Your task to perform on an android device: Open calendar and show me the first week of next month Image 0: 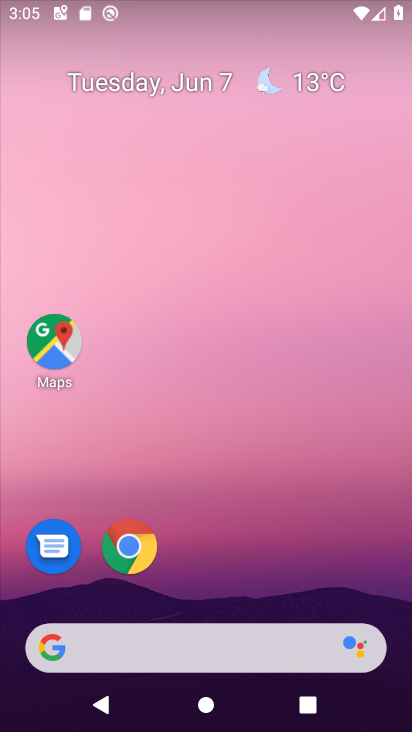
Step 0: drag from (315, 595) to (387, 137)
Your task to perform on an android device: Open calendar and show me the first week of next month Image 1: 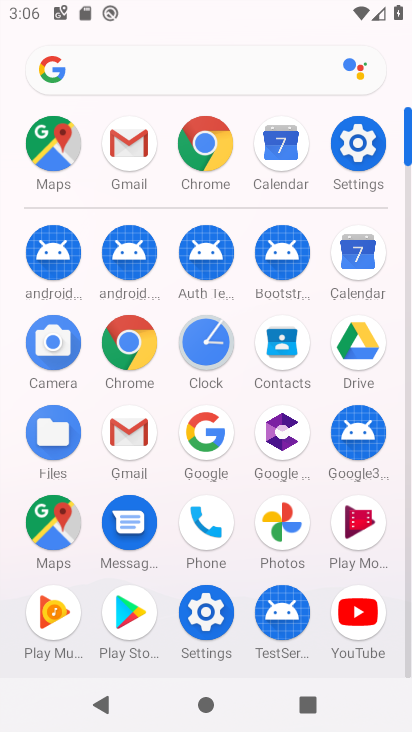
Step 1: click (356, 277)
Your task to perform on an android device: Open calendar and show me the first week of next month Image 2: 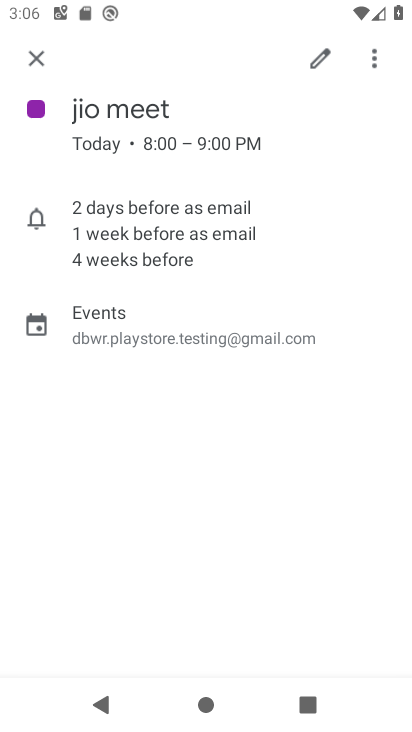
Step 2: click (30, 61)
Your task to perform on an android device: Open calendar and show me the first week of next month Image 3: 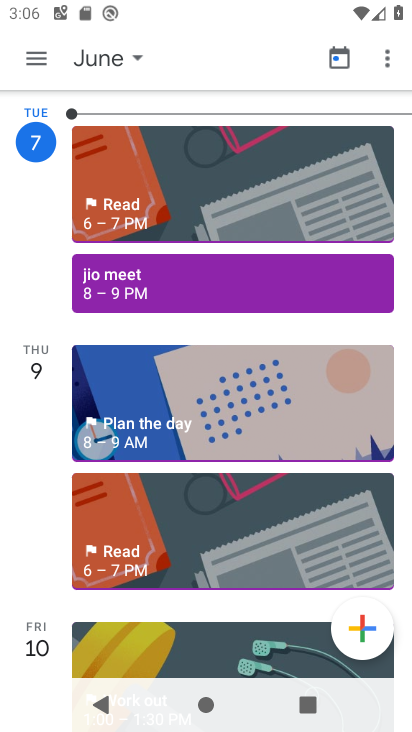
Step 3: click (142, 57)
Your task to perform on an android device: Open calendar and show me the first week of next month Image 4: 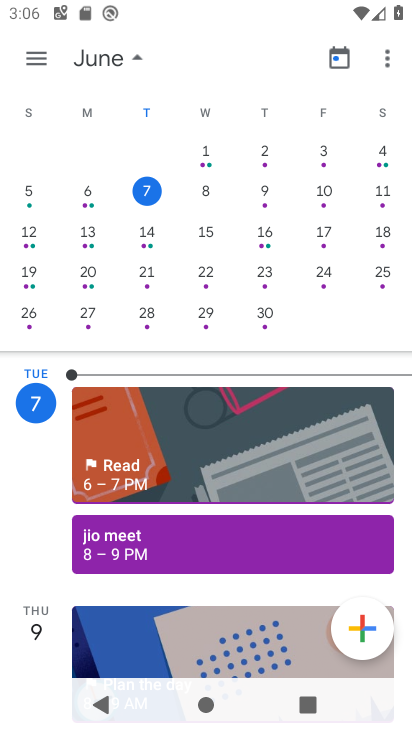
Step 4: drag from (362, 126) to (18, 215)
Your task to perform on an android device: Open calendar and show me the first week of next month Image 5: 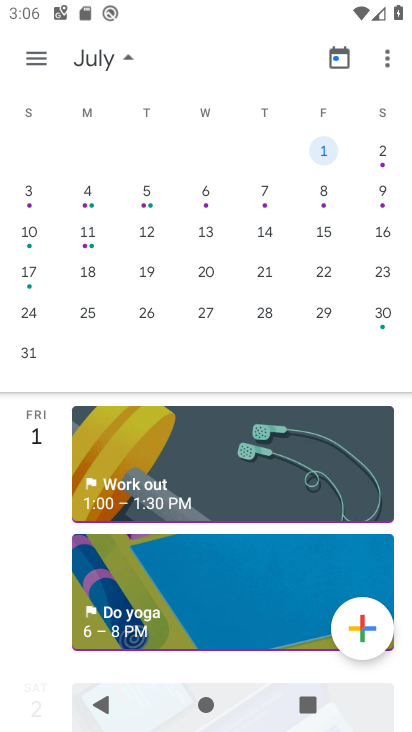
Step 5: click (82, 199)
Your task to perform on an android device: Open calendar and show me the first week of next month Image 6: 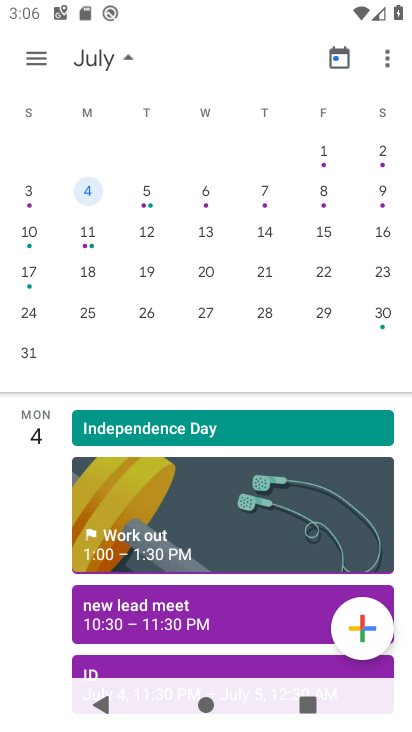
Step 6: task complete